Your task to perform on an android device: change the clock style Image 0: 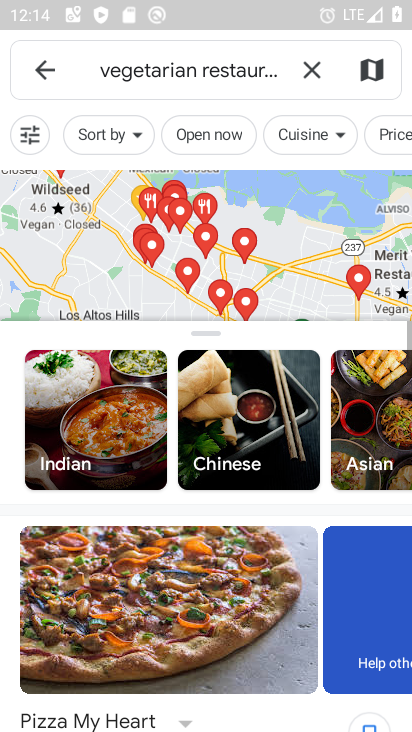
Step 0: press home button
Your task to perform on an android device: change the clock style Image 1: 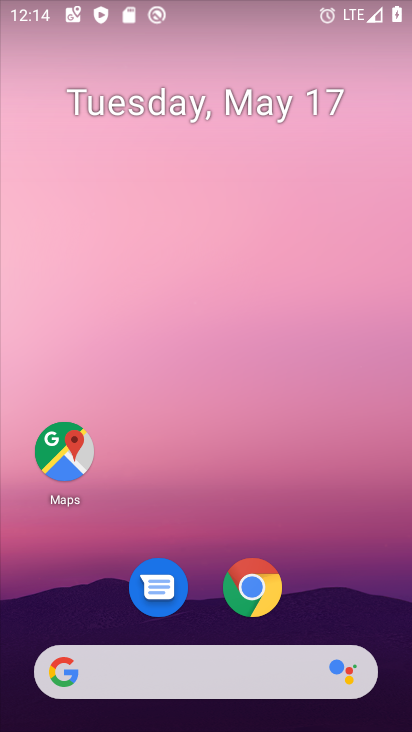
Step 1: drag from (389, 632) to (334, 59)
Your task to perform on an android device: change the clock style Image 2: 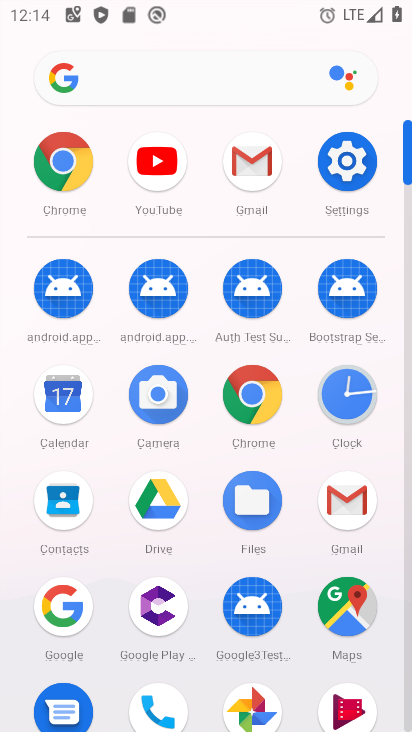
Step 2: click (360, 408)
Your task to perform on an android device: change the clock style Image 3: 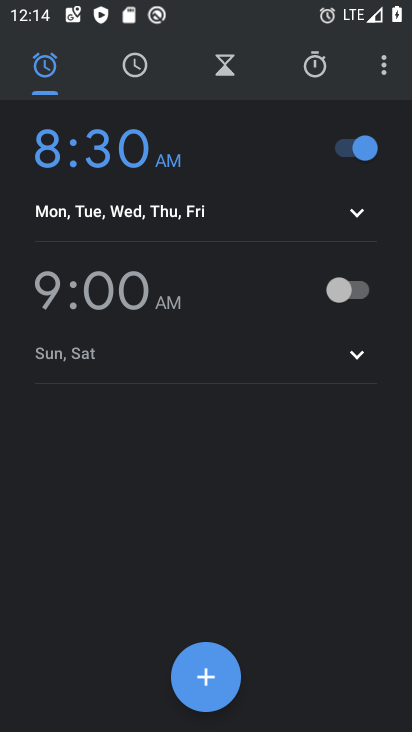
Step 3: click (383, 66)
Your task to perform on an android device: change the clock style Image 4: 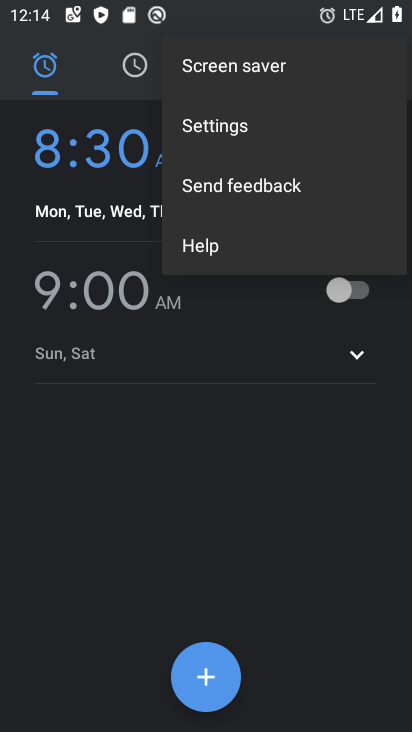
Step 4: click (292, 130)
Your task to perform on an android device: change the clock style Image 5: 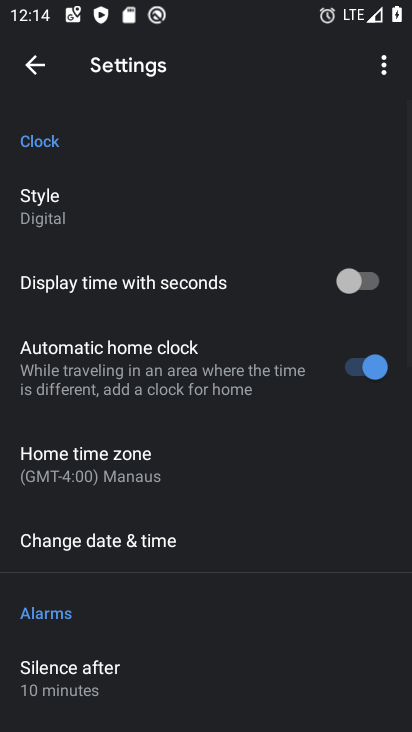
Step 5: click (86, 203)
Your task to perform on an android device: change the clock style Image 6: 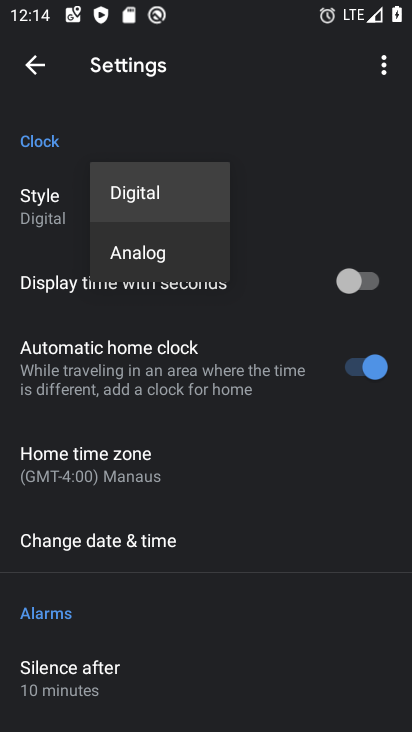
Step 6: click (140, 256)
Your task to perform on an android device: change the clock style Image 7: 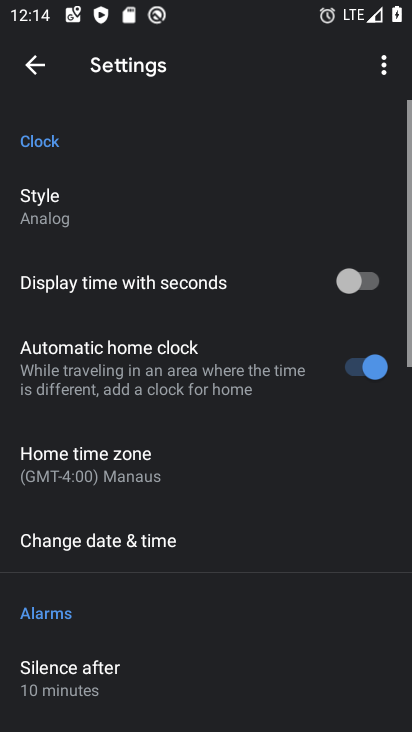
Step 7: task complete